Your task to perform on an android device: What's on my calendar tomorrow? Image 0: 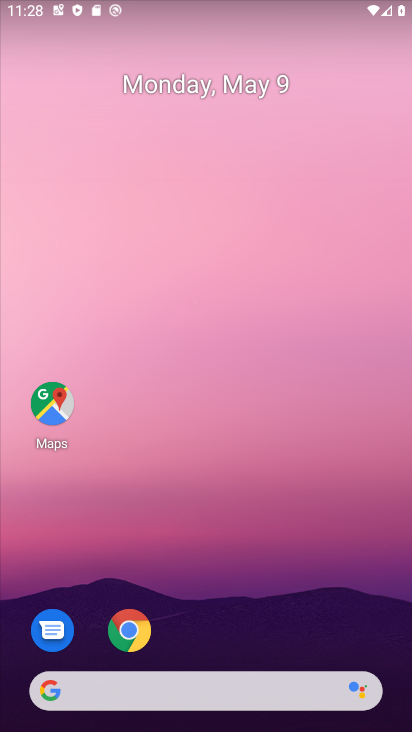
Step 0: drag from (179, 532) to (166, 20)
Your task to perform on an android device: What's on my calendar tomorrow? Image 1: 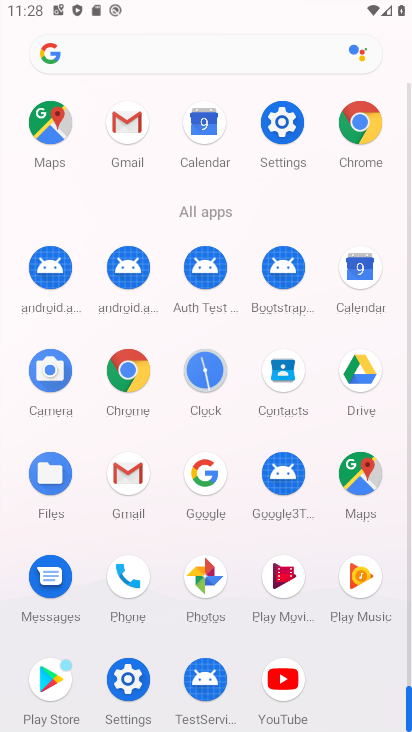
Step 1: drag from (10, 482) to (10, 148)
Your task to perform on an android device: What's on my calendar tomorrow? Image 2: 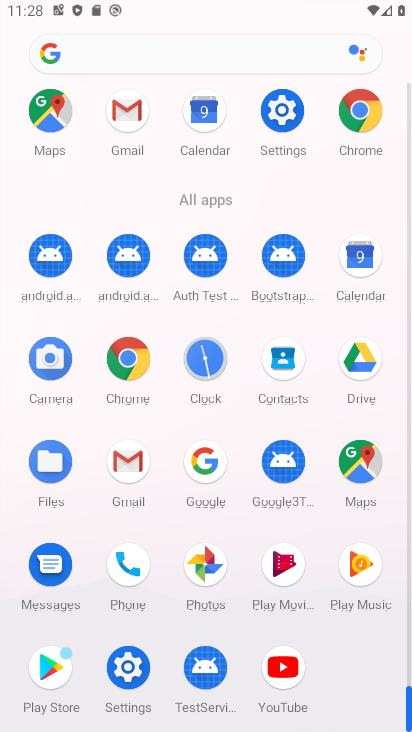
Step 2: drag from (3, 575) to (14, 254)
Your task to perform on an android device: What's on my calendar tomorrow? Image 3: 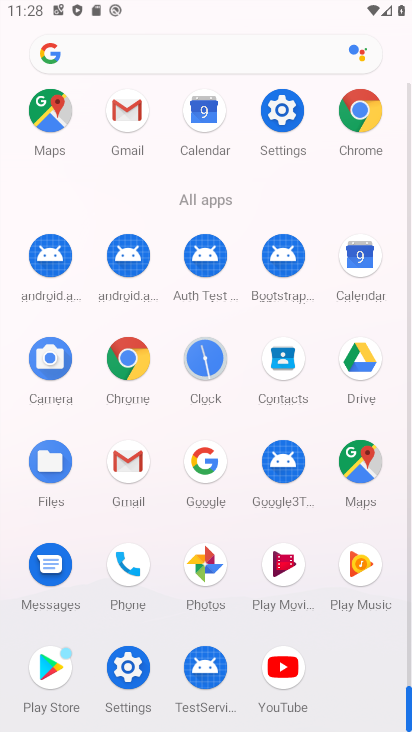
Step 3: click (208, 106)
Your task to perform on an android device: What's on my calendar tomorrow? Image 4: 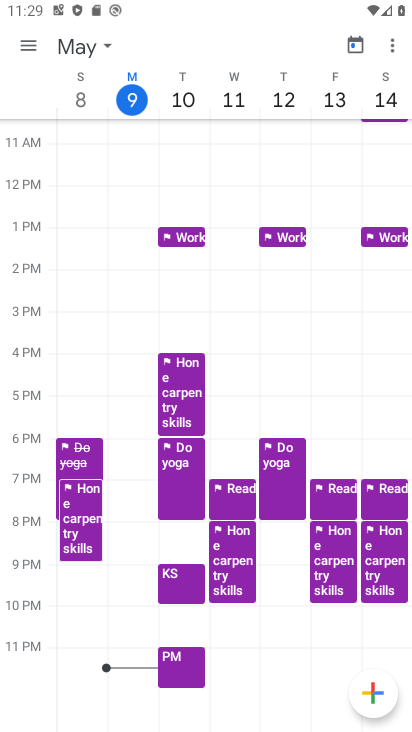
Step 4: click (179, 95)
Your task to perform on an android device: What's on my calendar tomorrow? Image 5: 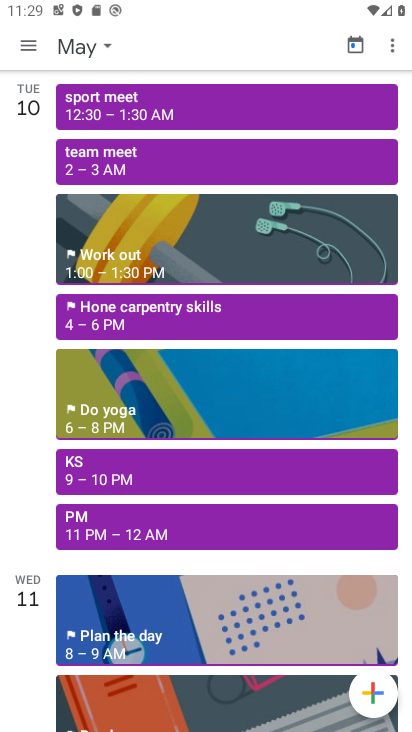
Step 5: task complete